Your task to perform on an android device: View the shopping cart on walmart. Search for sony triple a on walmart, select the first entry, and add it to the cart. Image 0: 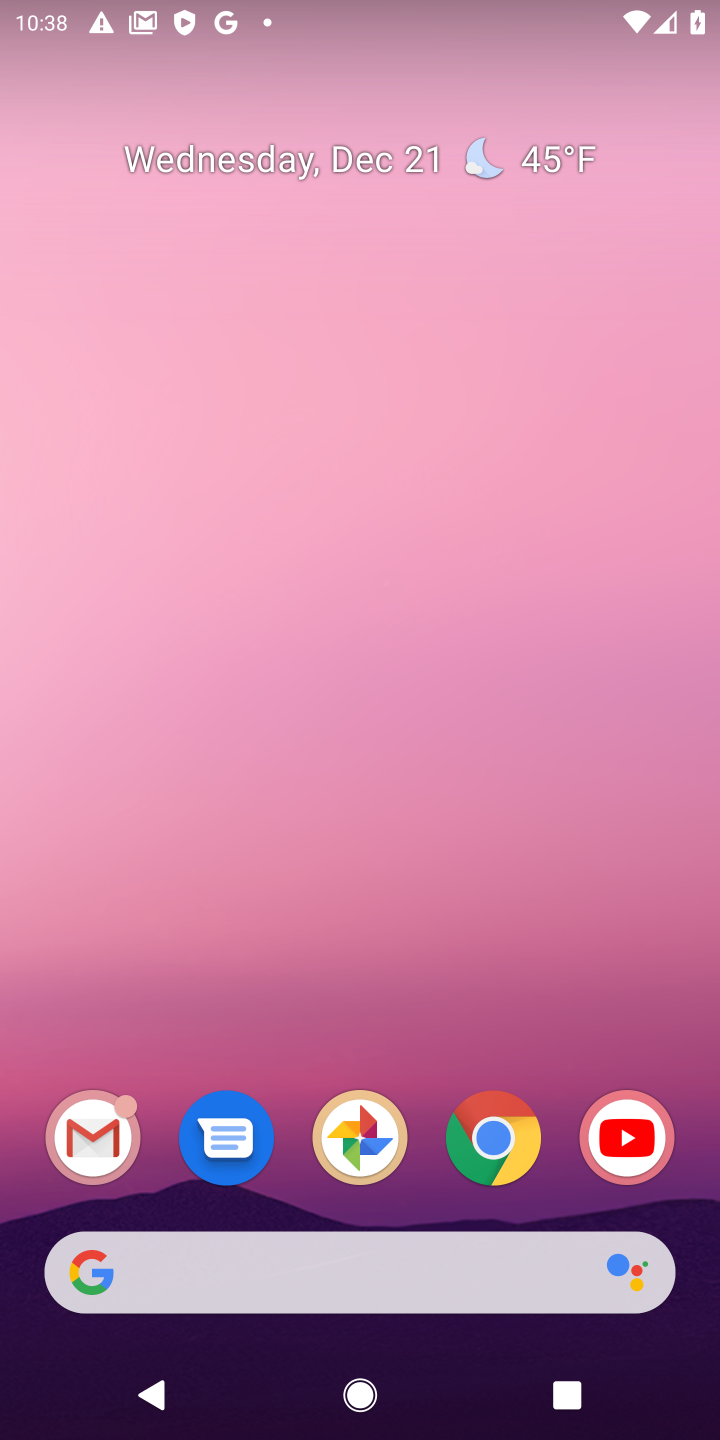
Step 0: click (495, 1143)
Your task to perform on an android device: View the shopping cart on walmart. Search for sony triple a on walmart, select the first entry, and add it to the cart. Image 1: 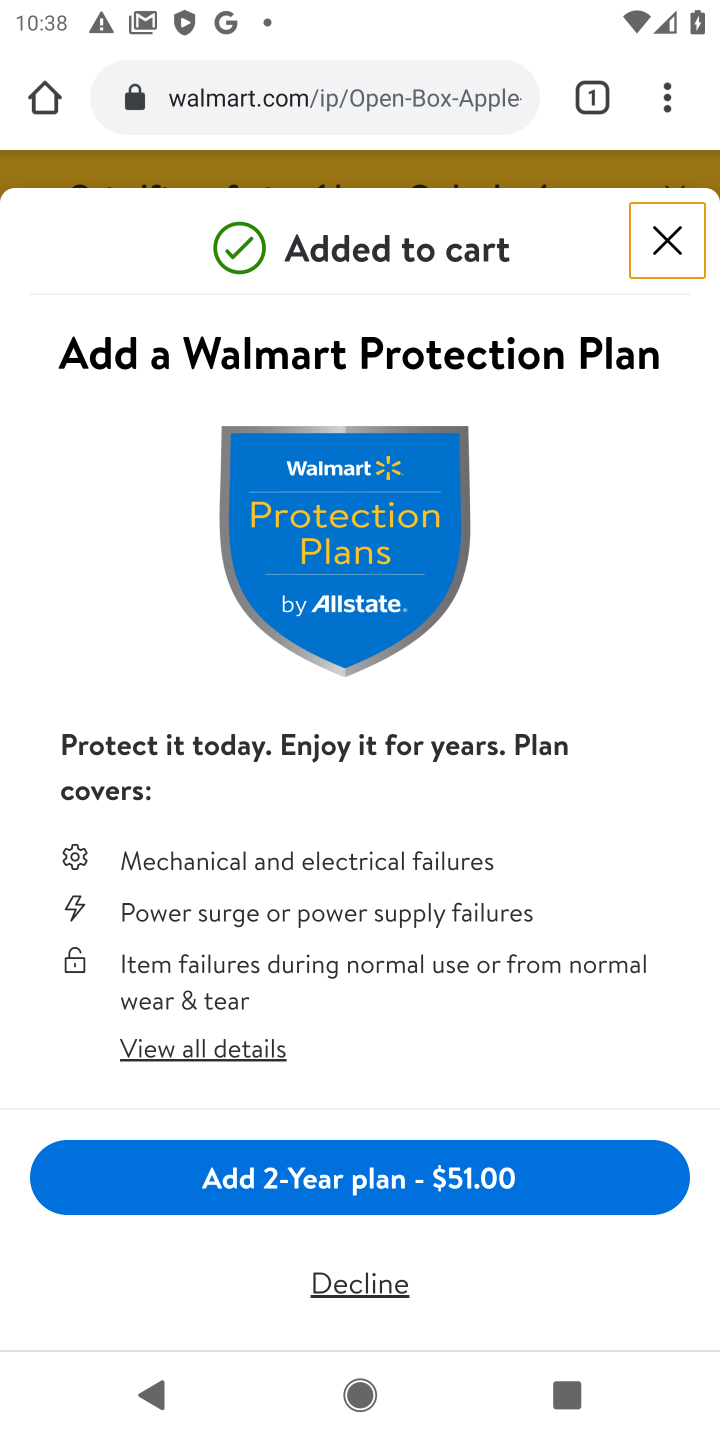
Step 1: click (650, 252)
Your task to perform on an android device: View the shopping cart on walmart. Search for sony triple a on walmart, select the first entry, and add it to the cart. Image 2: 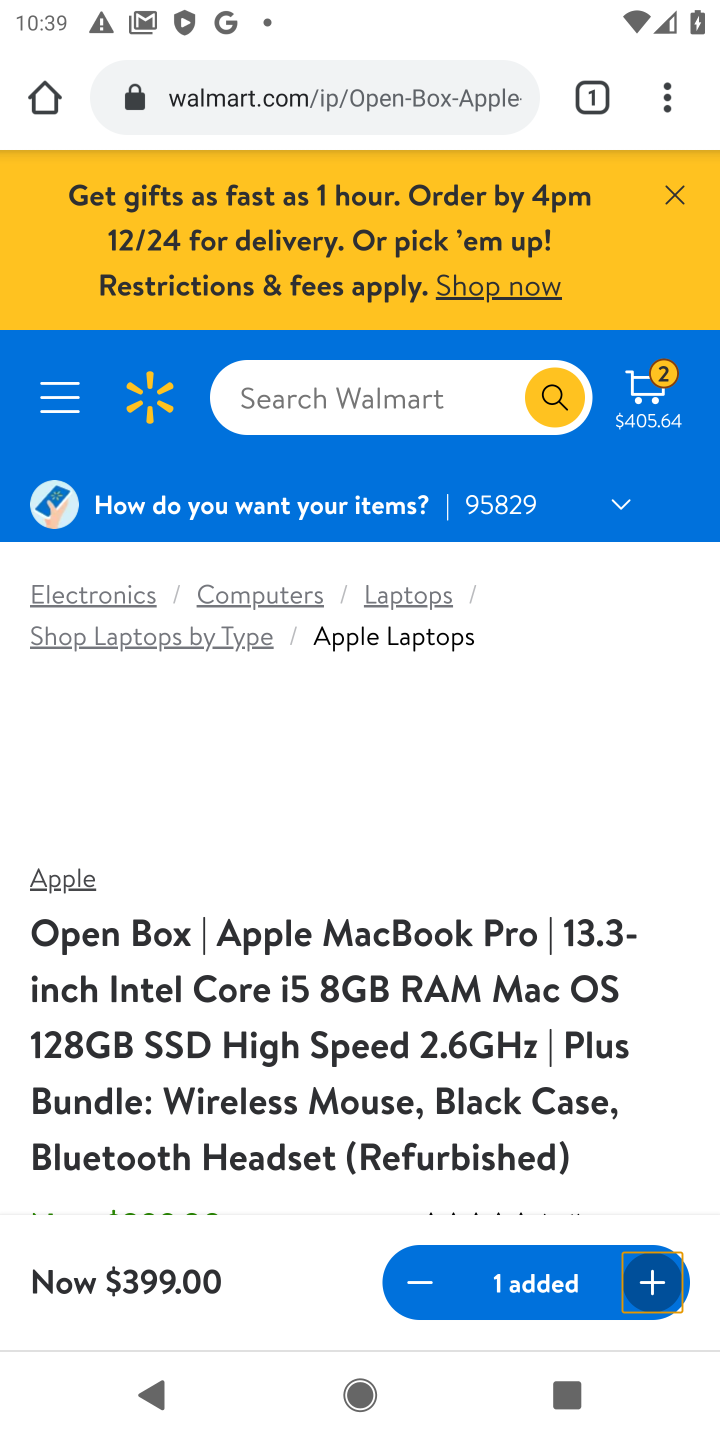
Step 2: click (646, 395)
Your task to perform on an android device: View the shopping cart on walmart. Search for sony triple a on walmart, select the first entry, and add it to the cart. Image 3: 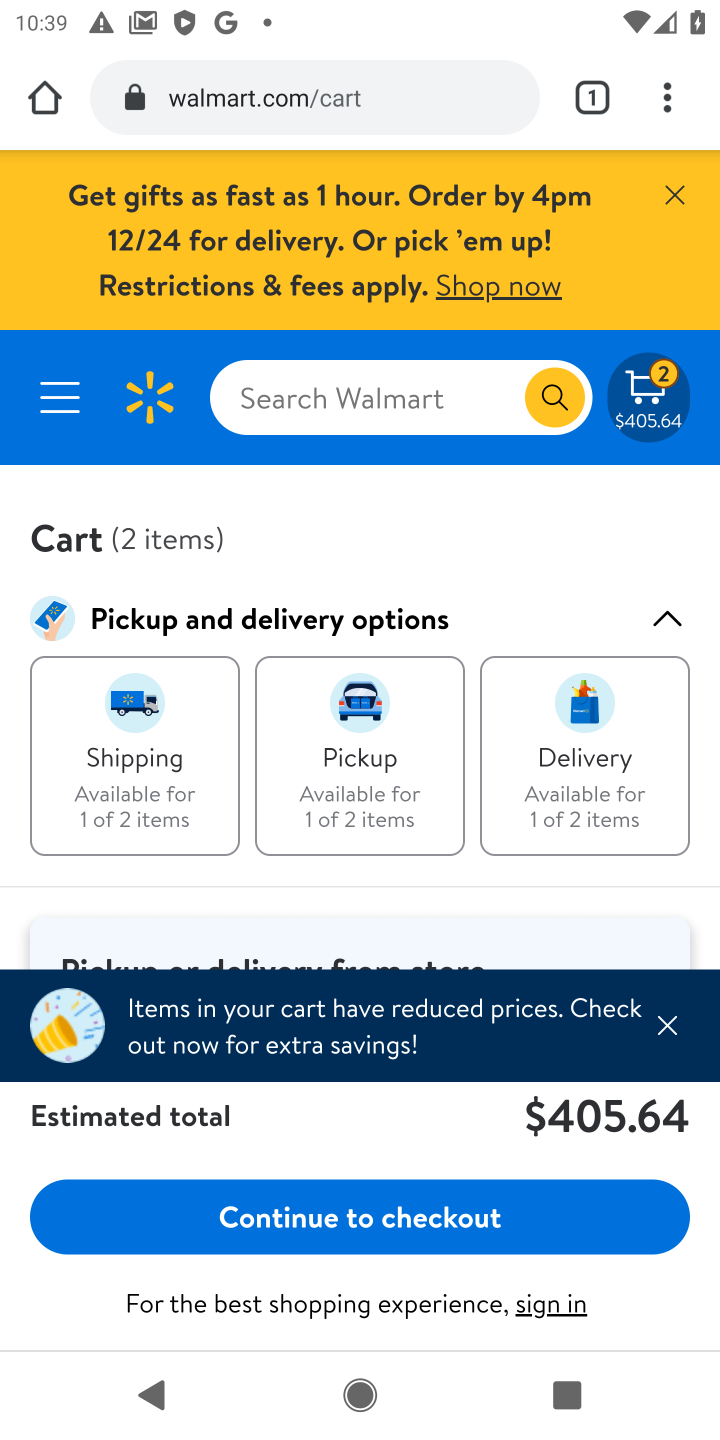
Step 3: click (309, 418)
Your task to perform on an android device: View the shopping cart on walmart. Search for sony triple a on walmart, select the first entry, and add it to the cart. Image 4: 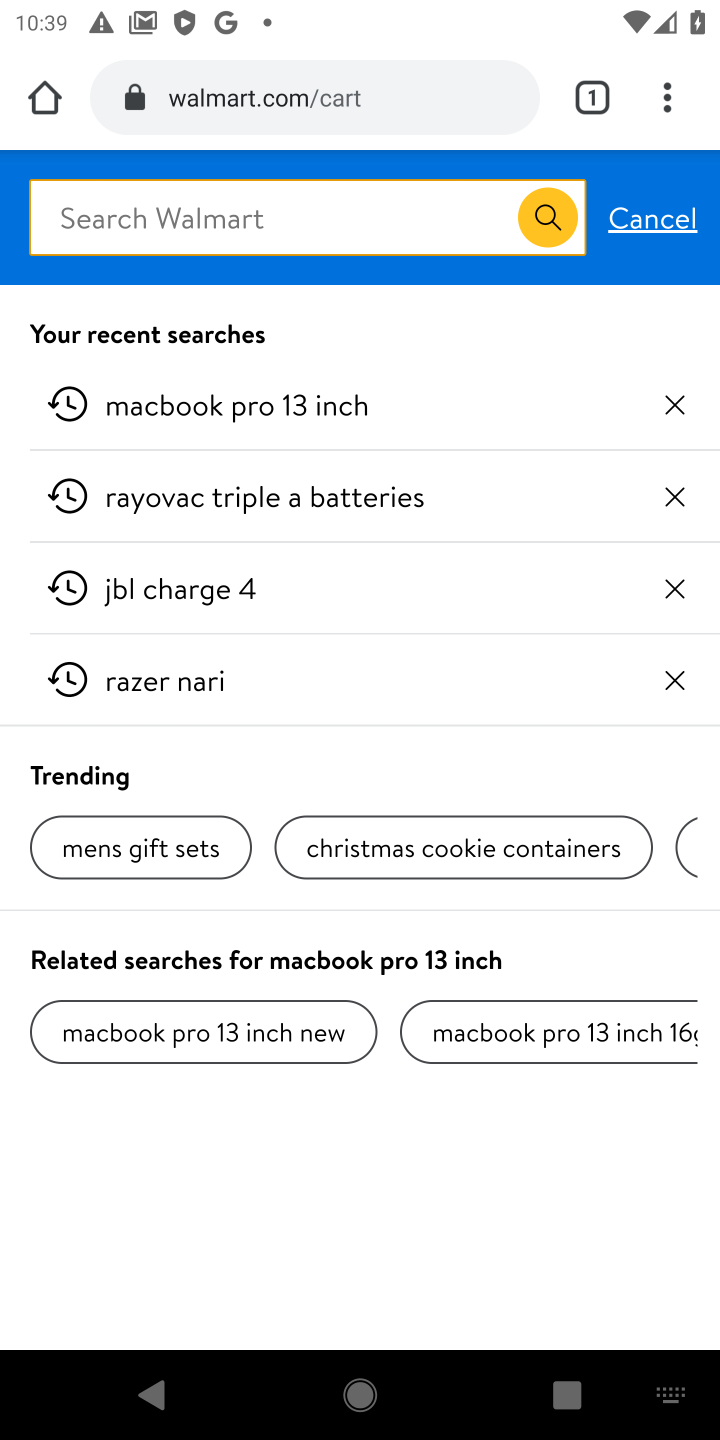
Step 4: type " sony triple a "
Your task to perform on an android device: View the shopping cart on walmart. Search for sony triple a on walmart, select the first entry, and add it to the cart. Image 5: 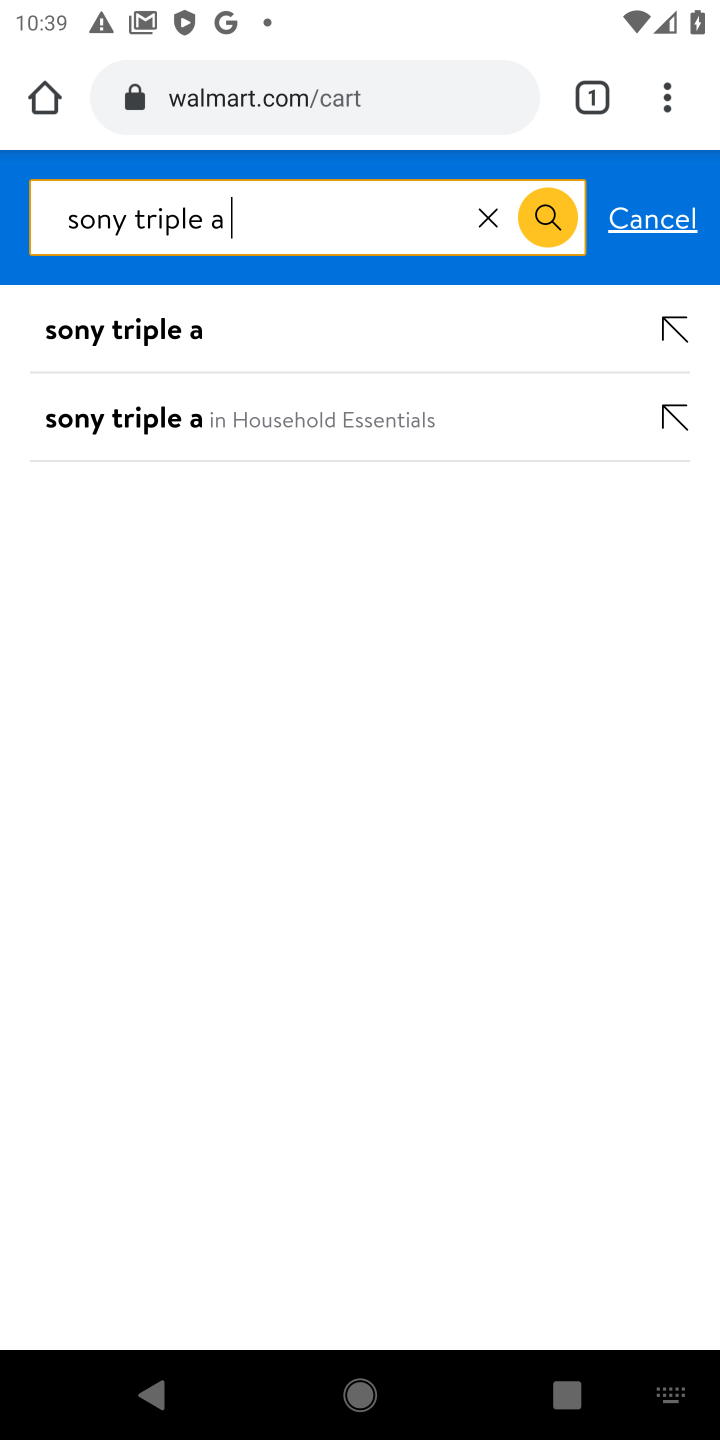
Step 5: click (108, 335)
Your task to perform on an android device: View the shopping cart on walmart. Search for sony triple a on walmart, select the first entry, and add it to the cart. Image 6: 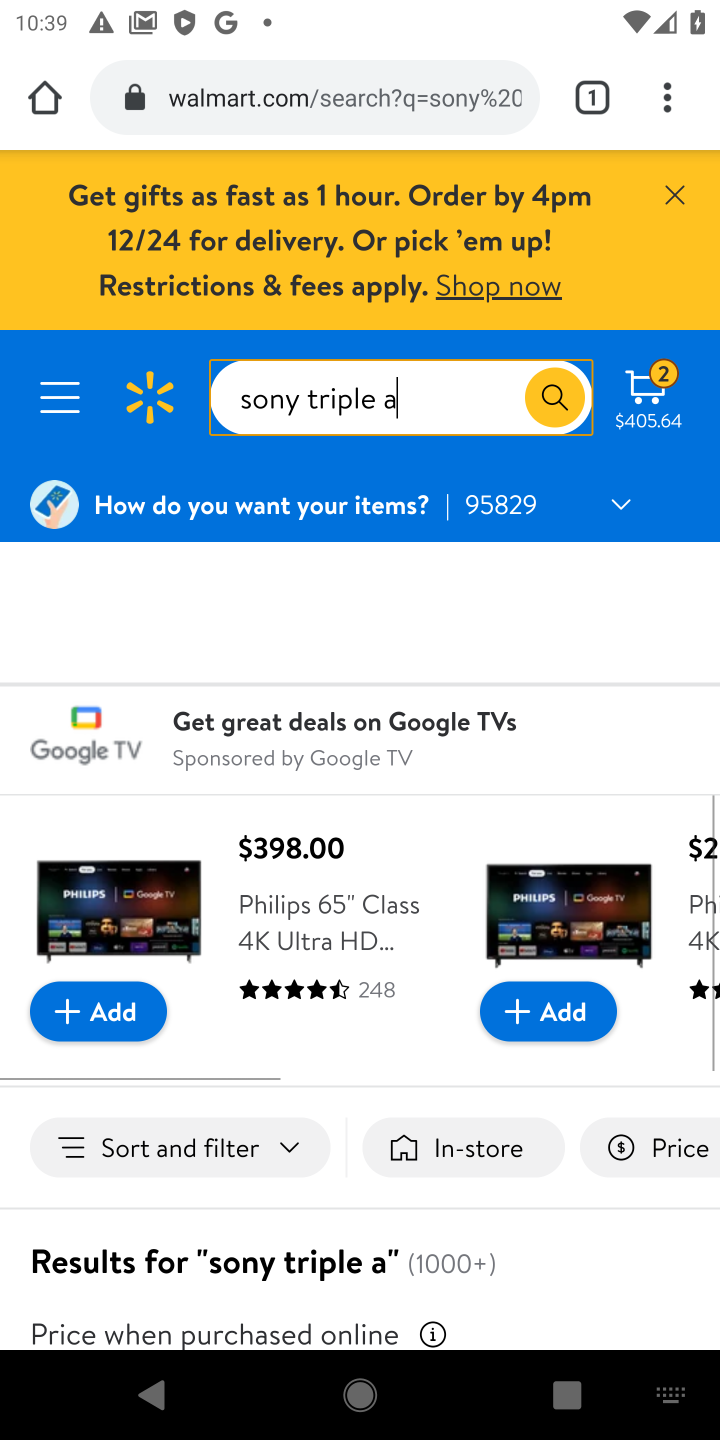
Step 6: task complete